Your task to perform on an android device: turn off data saver in the chrome app Image 0: 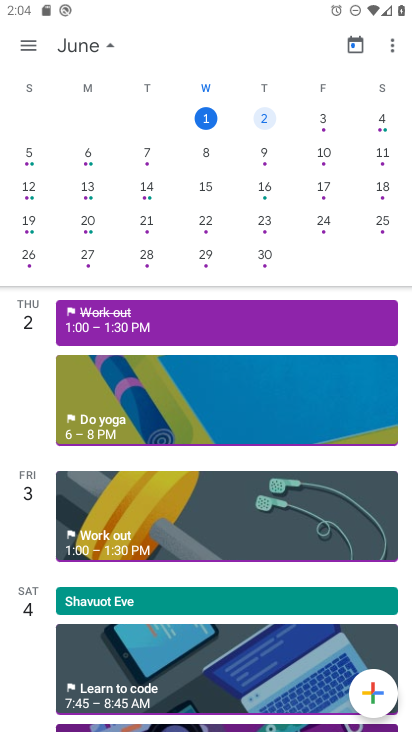
Step 0: press home button
Your task to perform on an android device: turn off data saver in the chrome app Image 1: 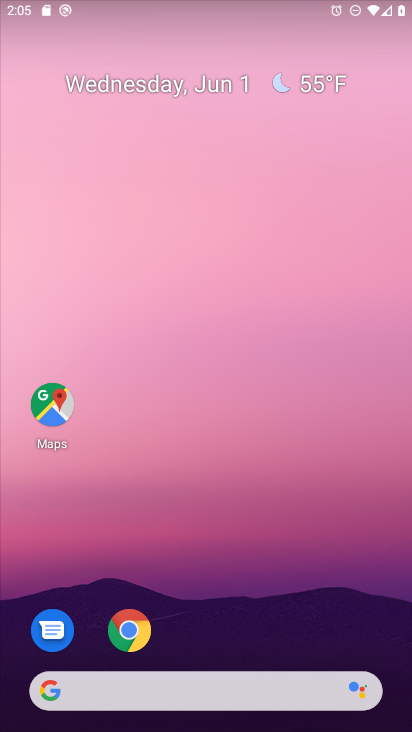
Step 1: drag from (352, 666) to (312, 22)
Your task to perform on an android device: turn off data saver in the chrome app Image 2: 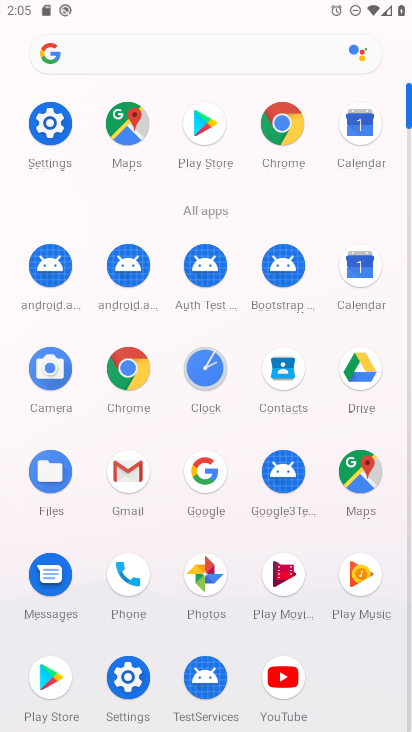
Step 2: click (122, 382)
Your task to perform on an android device: turn off data saver in the chrome app Image 3: 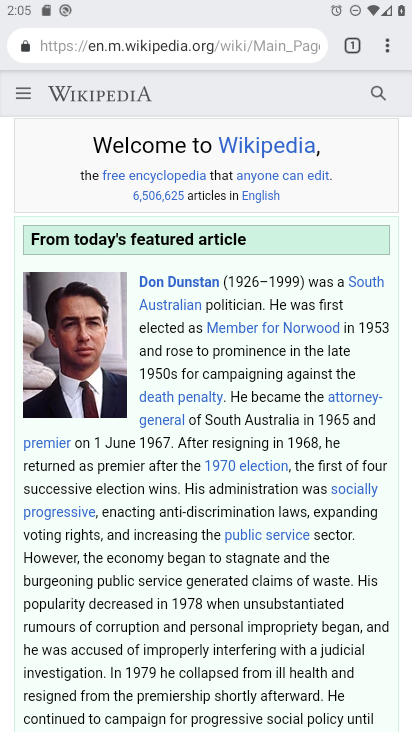
Step 3: drag from (380, 44) to (242, 551)
Your task to perform on an android device: turn off data saver in the chrome app Image 4: 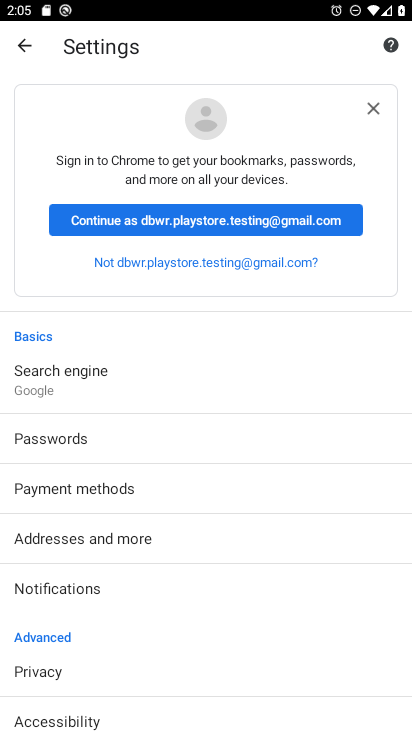
Step 4: drag from (187, 649) to (207, 176)
Your task to perform on an android device: turn off data saver in the chrome app Image 5: 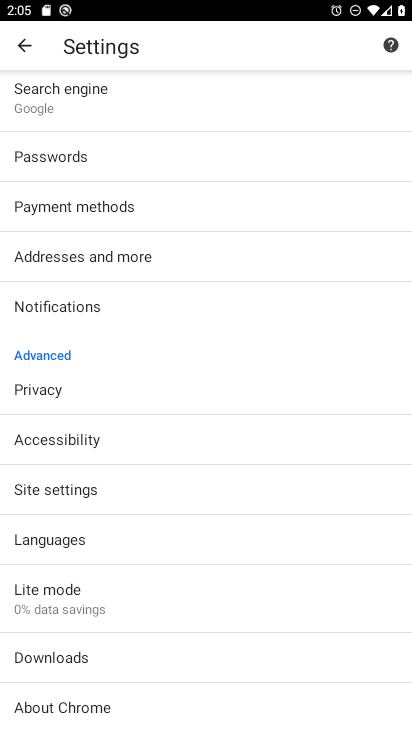
Step 5: click (90, 610)
Your task to perform on an android device: turn off data saver in the chrome app Image 6: 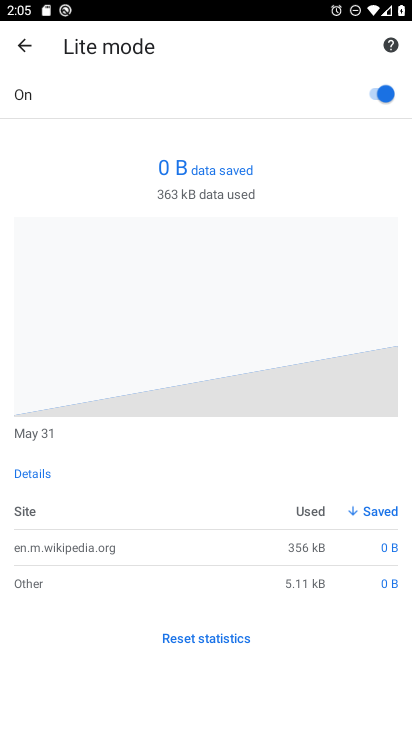
Step 6: click (386, 99)
Your task to perform on an android device: turn off data saver in the chrome app Image 7: 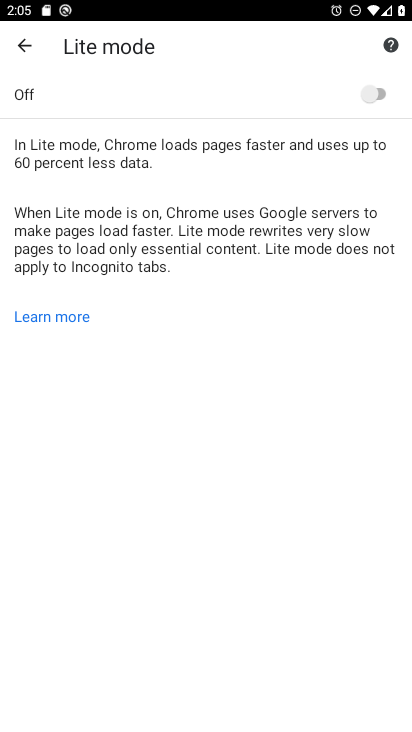
Step 7: task complete